Your task to perform on an android device: toggle data saver in the chrome app Image 0: 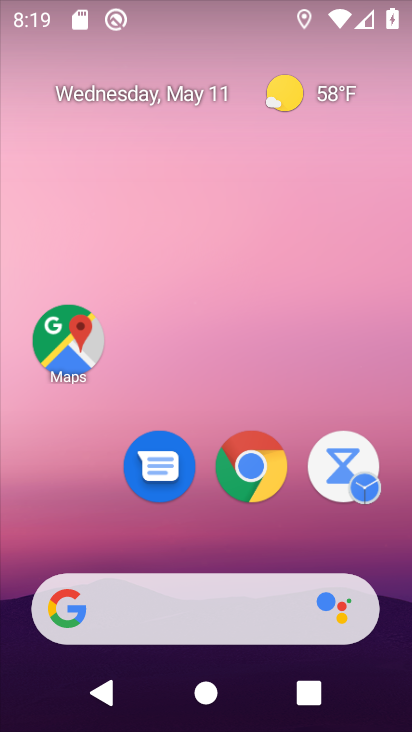
Step 0: click (240, 455)
Your task to perform on an android device: toggle data saver in the chrome app Image 1: 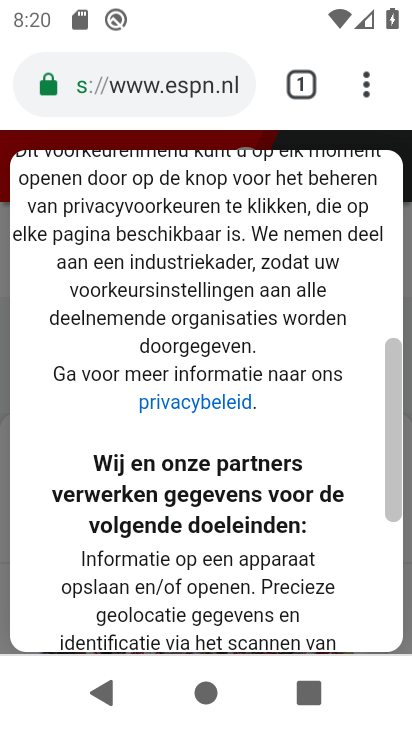
Step 1: drag from (207, 600) to (189, 516)
Your task to perform on an android device: toggle data saver in the chrome app Image 2: 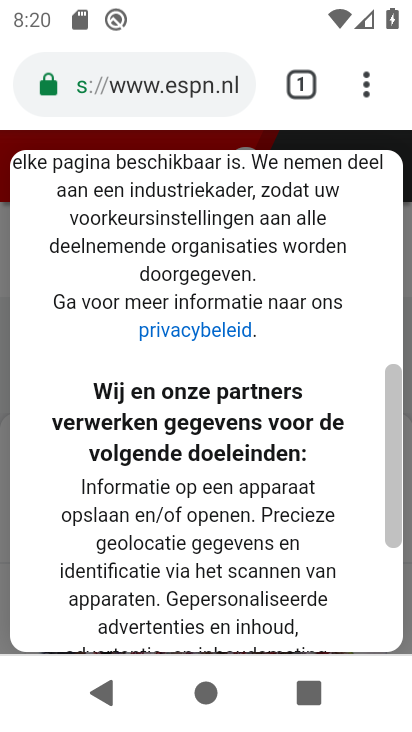
Step 2: click (355, 97)
Your task to perform on an android device: toggle data saver in the chrome app Image 3: 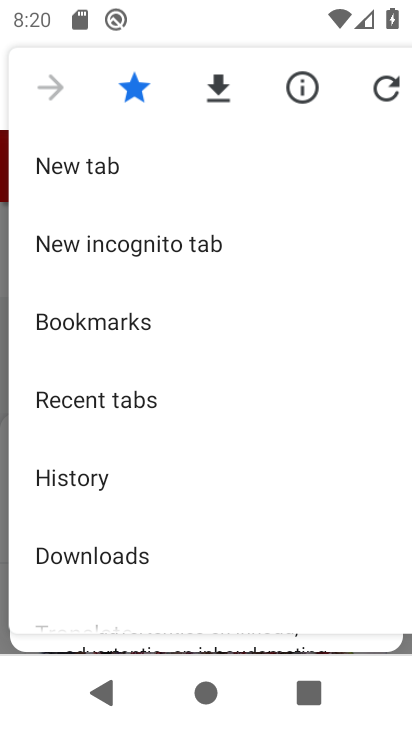
Step 3: drag from (122, 568) to (86, 342)
Your task to perform on an android device: toggle data saver in the chrome app Image 4: 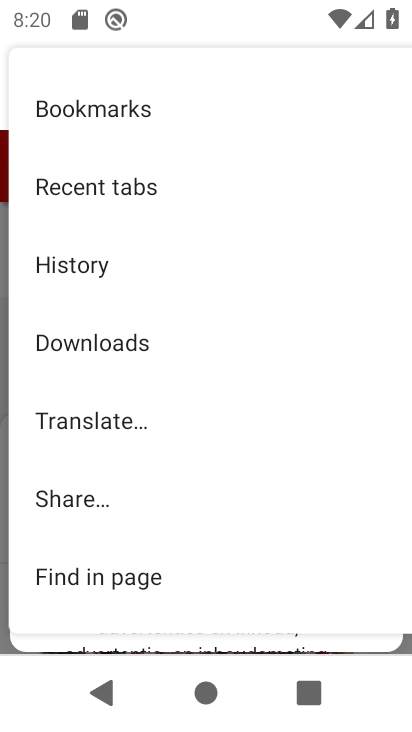
Step 4: drag from (220, 538) to (214, 351)
Your task to perform on an android device: toggle data saver in the chrome app Image 5: 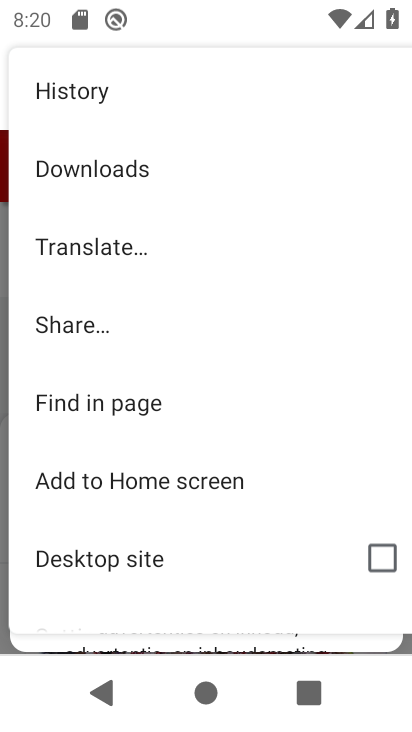
Step 5: drag from (229, 562) to (212, 349)
Your task to perform on an android device: toggle data saver in the chrome app Image 6: 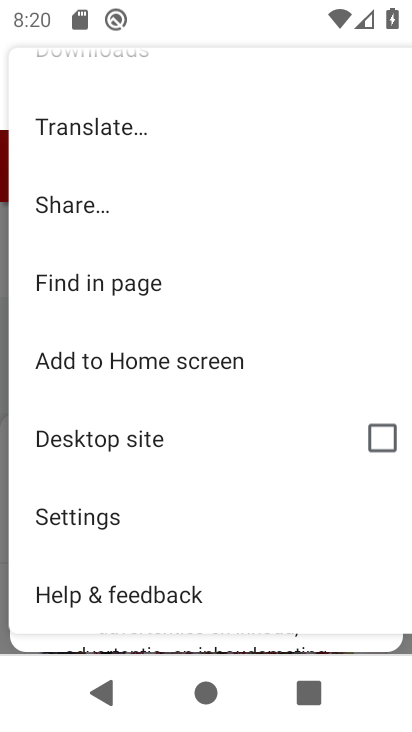
Step 6: click (159, 521)
Your task to perform on an android device: toggle data saver in the chrome app Image 7: 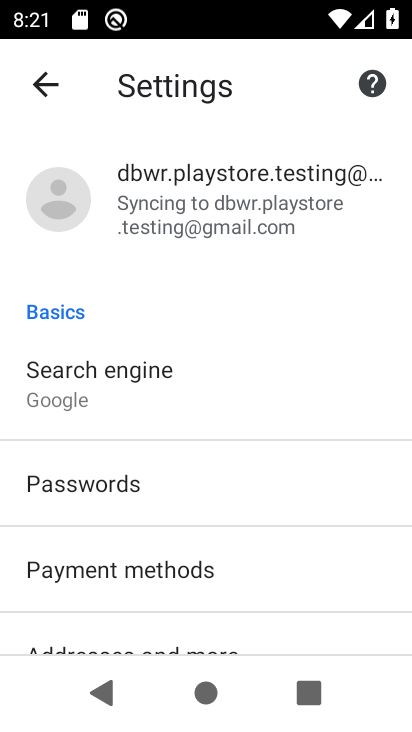
Step 7: drag from (163, 559) to (209, 241)
Your task to perform on an android device: toggle data saver in the chrome app Image 8: 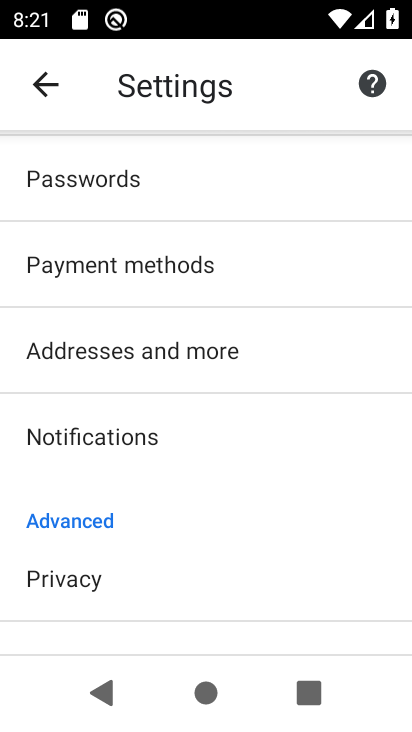
Step 8: drag from (169, 504) to (163, 241)
Your task to perform on an android device: toggle data saver in the chrome app Image 9: 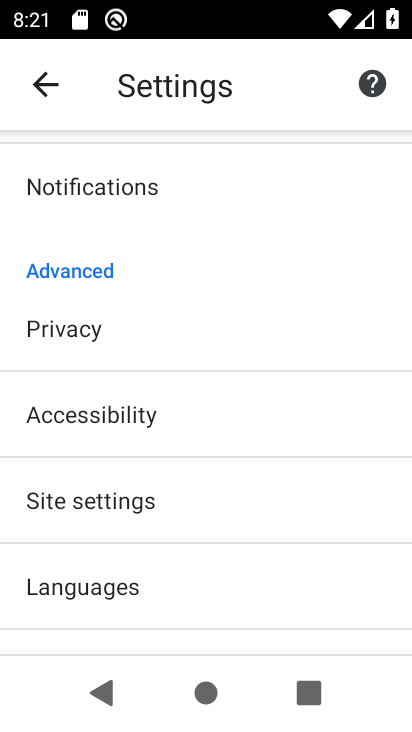
Step 9: drag from (135, 575) to (130, 367)
Your task to perform on an android device: toggle data saver in the chrome app Image 10: 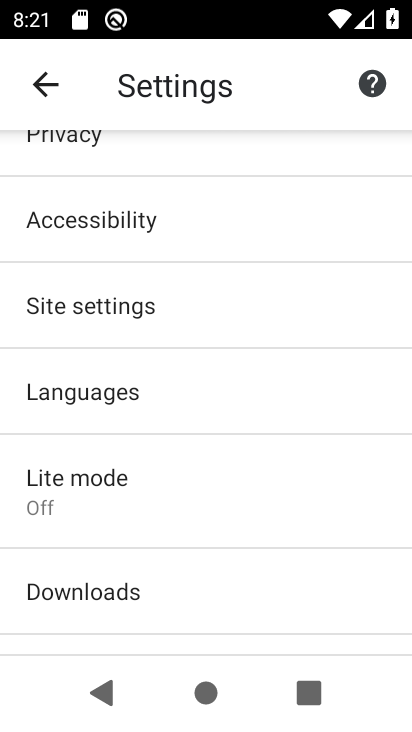
Step 10: click (68, 522)
Your task to perform on an android device: toggle data saver in the chrome app Image 11: 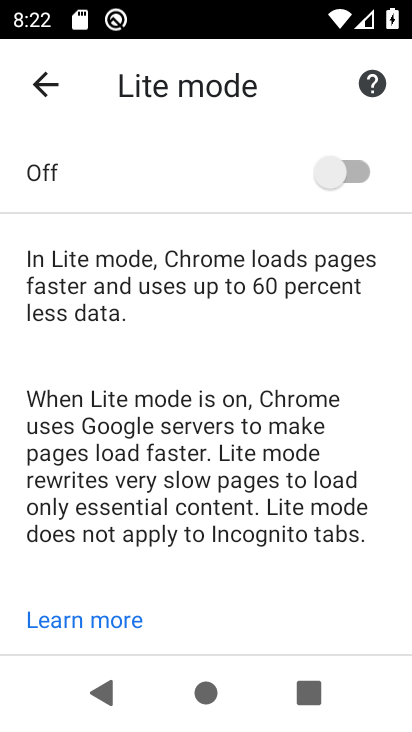
Step 11: click (332, 188)
Your task to perform on an android device: toggle data saver in the chrome app Image 12: 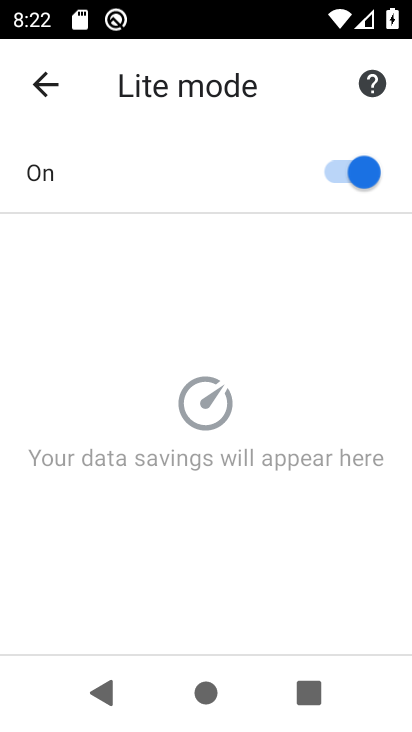
Step 12: task complete